Your task to perform on an android device: Show me popular games on the Play Store Image 0: 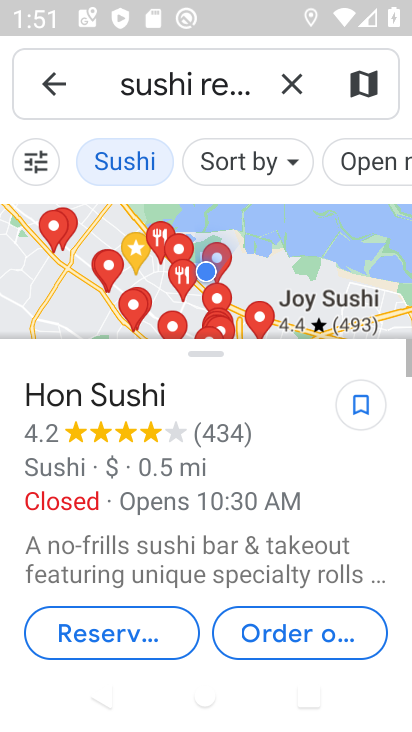
Step 0: press home button
Your task to perform on an android device: Show me popular games on the Play Store Image 1: 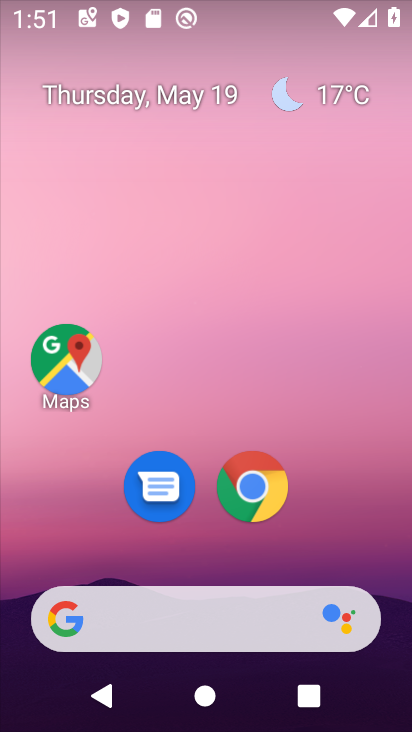
Step 1: drag from (337, 421) to (223, 1)
Your task to perform on an android device: Show me popular games on the Play Store Image 2: 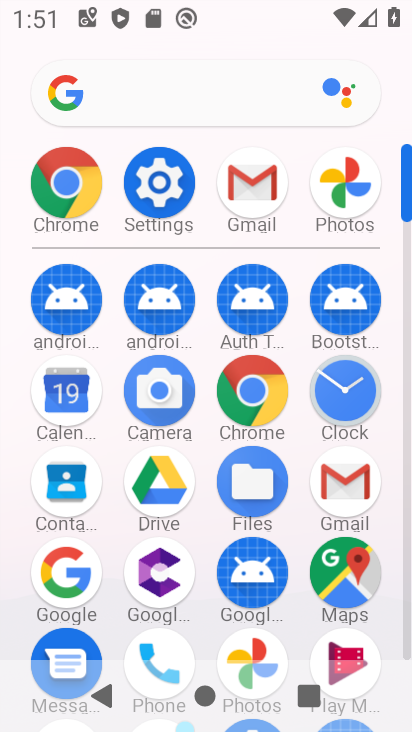
Step 2: drag from (198, 648) to (259, 247)
Your task to perform on an android device: Show me popular games on the Play Store Image 3: 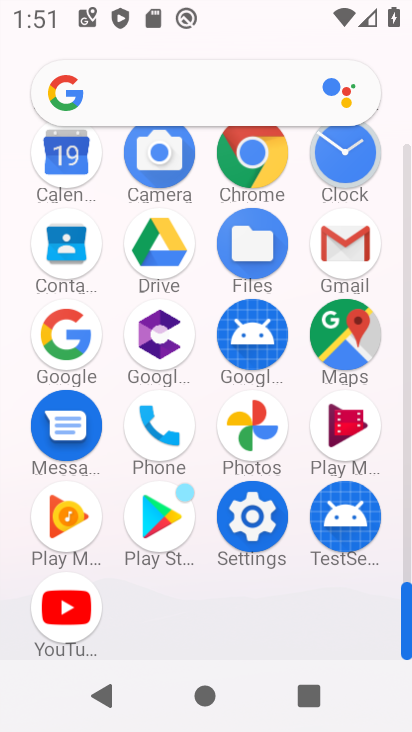
Step 3: click (157, 505)
Your task to perform on an android device: Show me popular games on the Play Store Image 4: 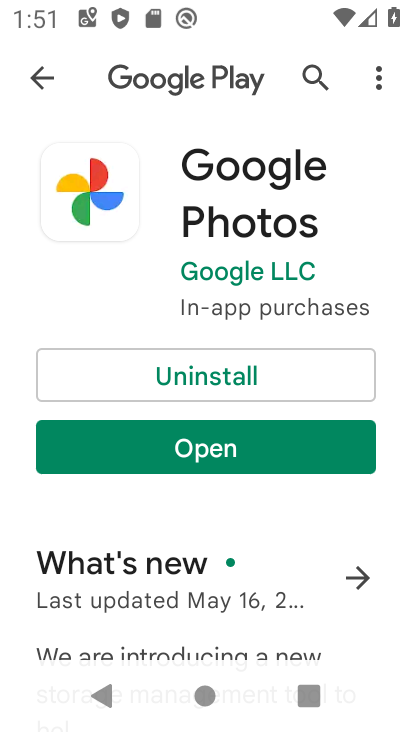
Step 4: click (38, 85)
Your task to perform on an android device: Show me popular games on the Play Store Image 5: 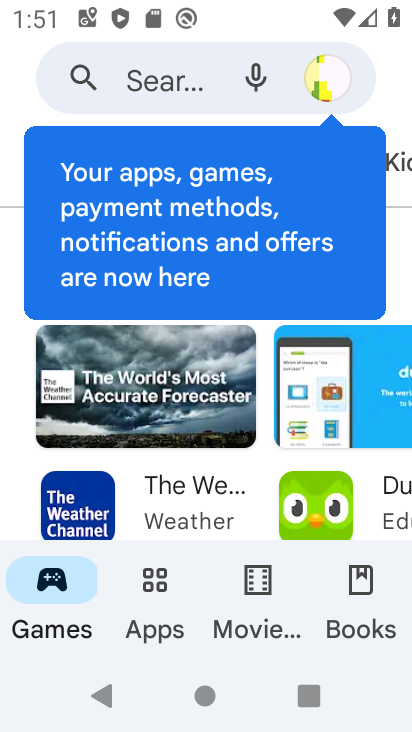
Step 5: click (21, 106)
Your task to perform on an android device: Show me popular games on the Play Store Image 6: 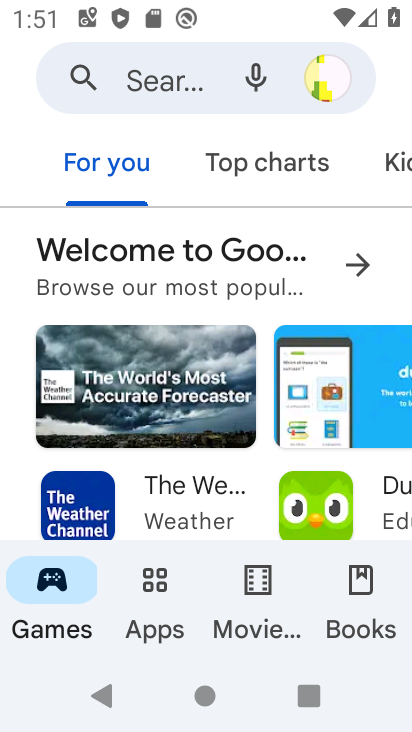
Step 6: click (266, 161)
Your task to perform on an android device: Show me popular games on the Play Store Image 7: 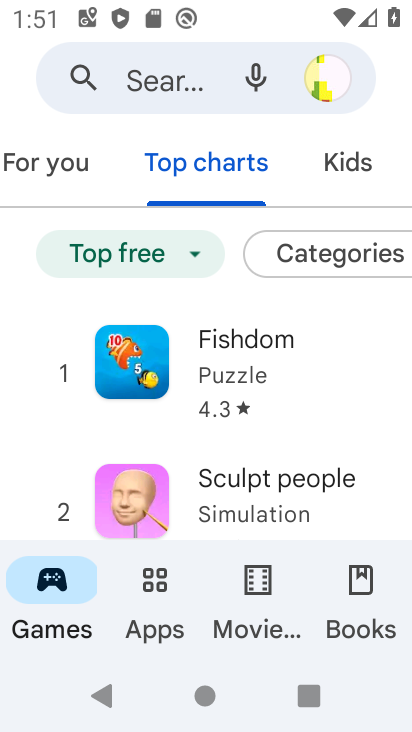
Step 7: task complete